Your task to perform on an android device: Go to Google Image 0: 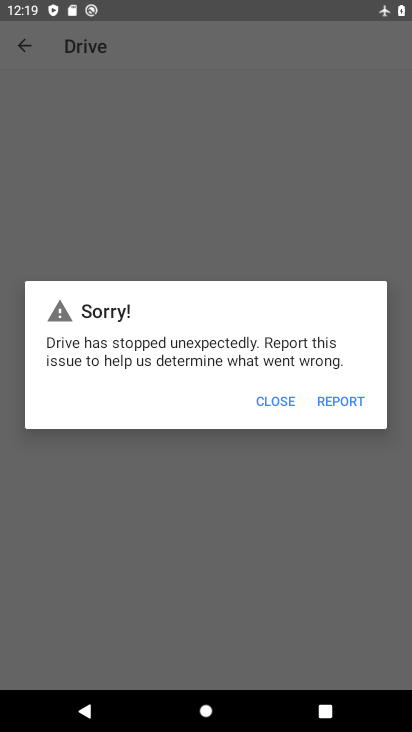
Step 0: click (284, 398)
Your task to perform on an android device: Go to Google Image 1: 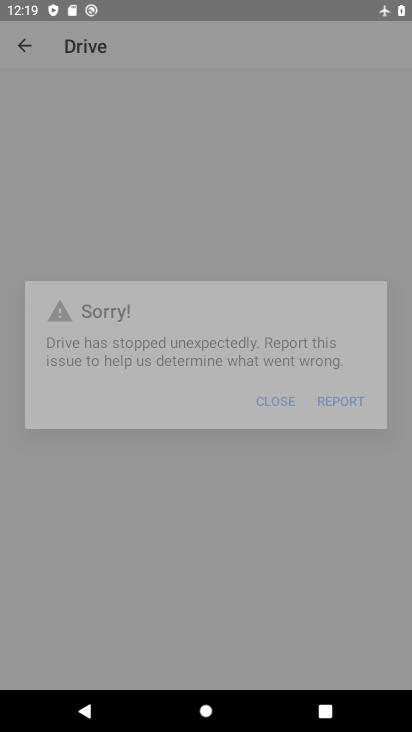
Step 1: click (211, 597)
Your task to perform on an android device: Go to Google Image 2: 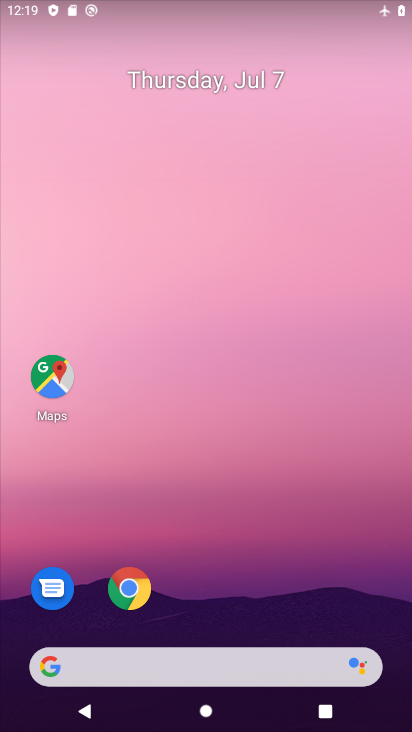
Step 2: drag from (227, 539) to (244, 206)
Your task to perform on an android device: Go to Google Image 3: 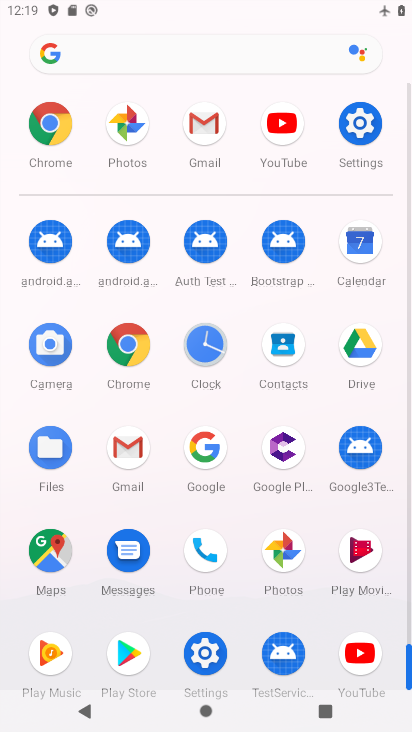
Step 3: click (214, 419)
Your task to perform on an android device: Go to Google Image 4: 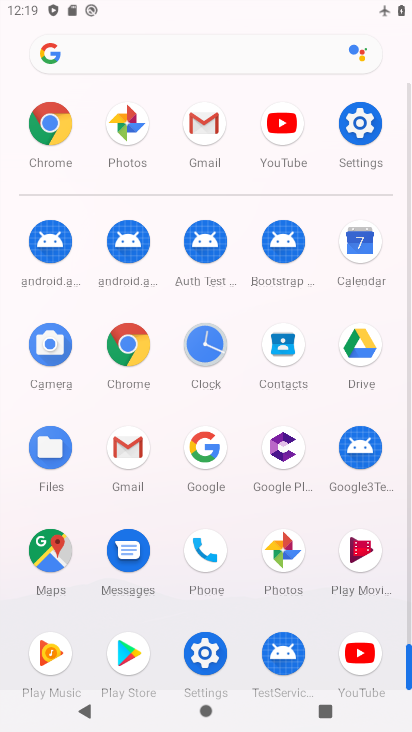
Step 4: click (213, 420)
Your task to perform on an android device: Go to Google Image 5: 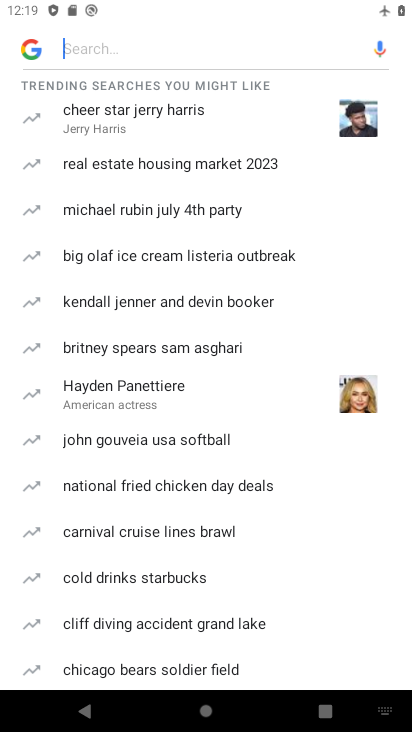
Step 5: press back button
Your task to perform on an android device: Go to Google Image 6: 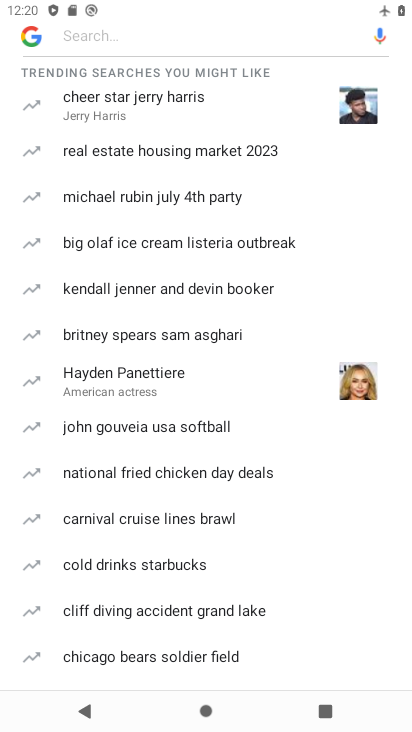
Step 6: press back button
Your task to perform on an android device: Go to Google Image 7: 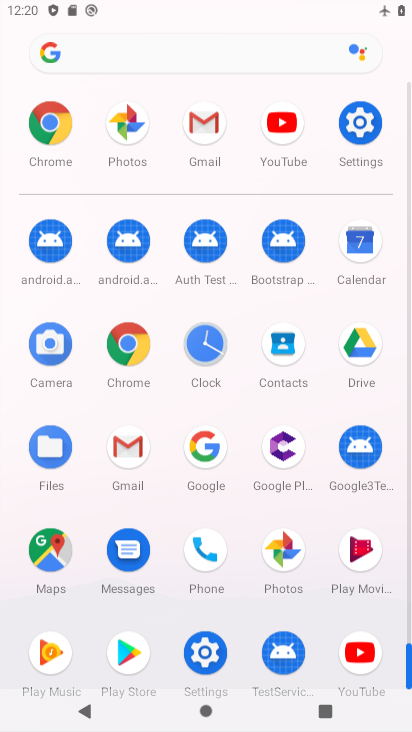
Step 7: drag from (130, 498) to (232, 311)
Your task to perform on an android device: Go to Google Image 8: 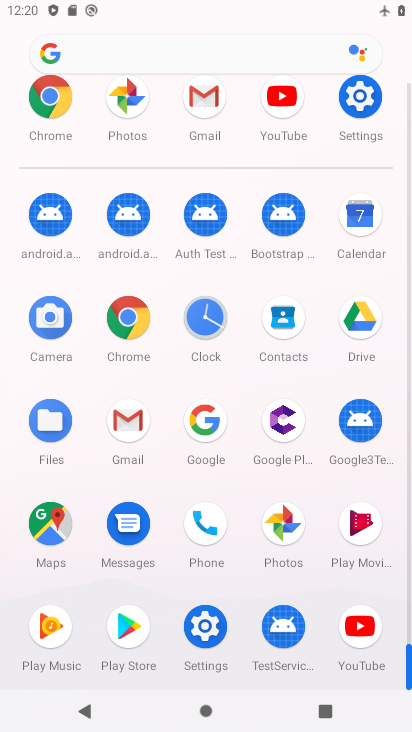
Step 8: click (201, 417)
Your task to perform on an android device: Go to Google Image 9: 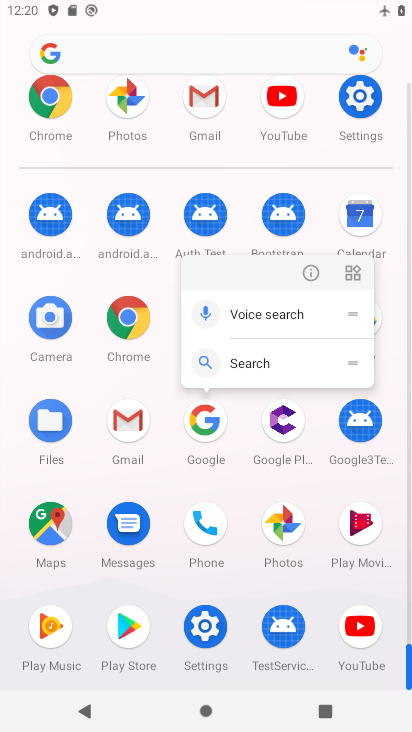
Step 9: click (315, 273)
Your task to perform on an android device: Go to Google Image 10: 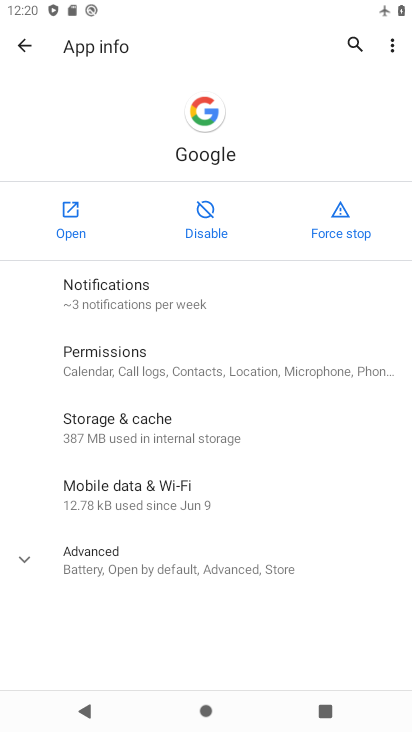
Step 10: click (70, 203)
Your task to perform on an android device: Go to Google Image 11: 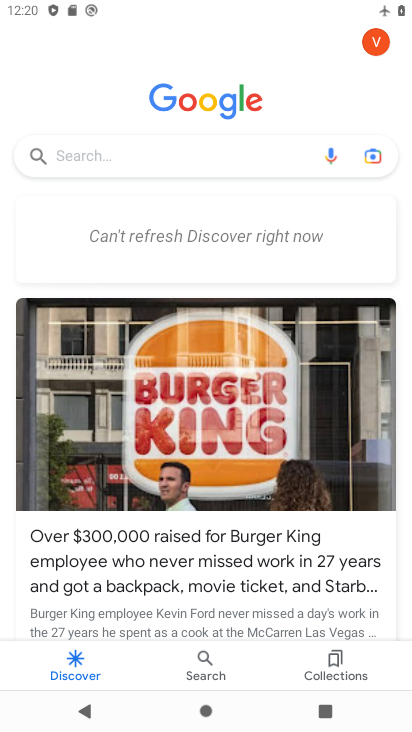
Step 11: task complete